Your task to perform on an android device: check battery use Image 0: 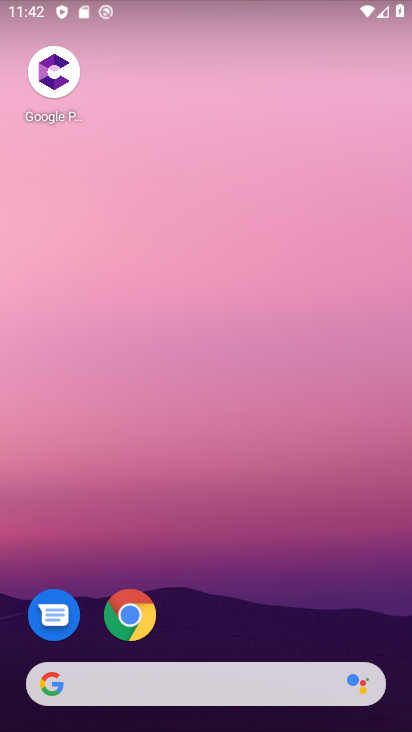
Step 0: drag from (155, 623) to (198, 140)
Your task to perform on an android device: check battery use Image 1: 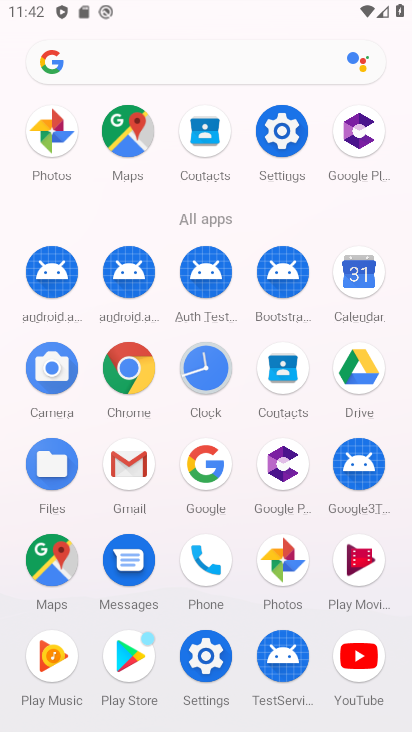
Step 1: click (265, 122)
Your task to perform on an android device: check battery use Image 2: 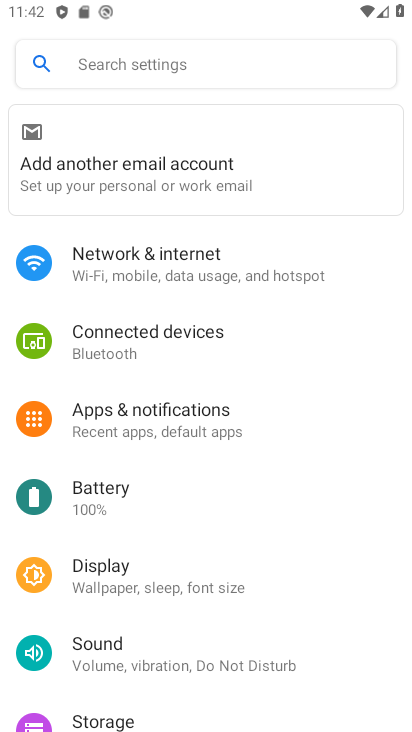
Step 2: click (125, 503)
Your task to perform on an android device: check battery use Image 3: 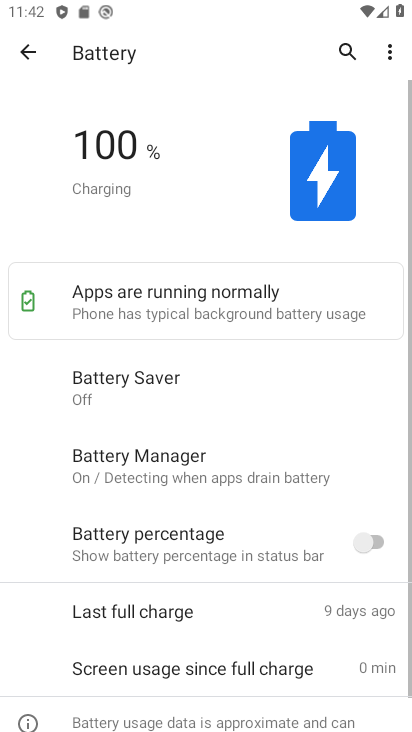
Step 3: task complete